Your task to perform on an android device: find snoozed emails in the gmail app Image 0: 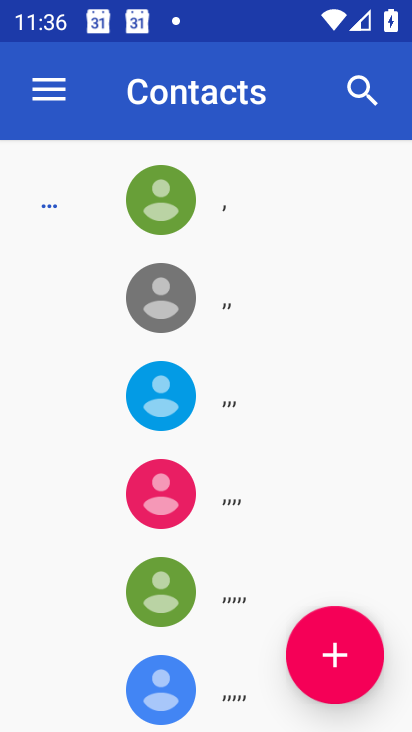
Step 0: press home button
Your task to perform on an android device: find snoozed emails in the gmail app Image 1: 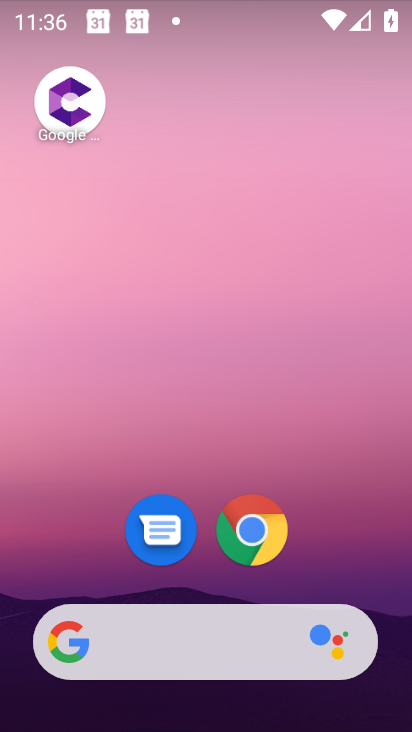
Step 1: drag from (326, 525) to (212, 3)
Your task to perform on an android device: find snoozed emails in the gmail app Image 2: 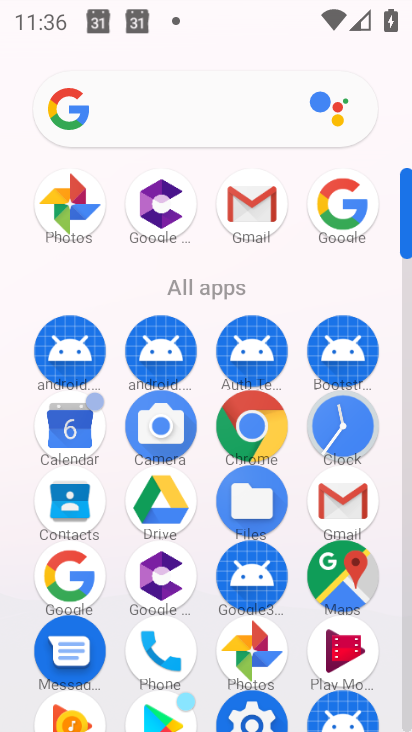
Step 2: click (268, 203)
Your task to perform on an android device: find snoozed emails in the gmail app Image 3: 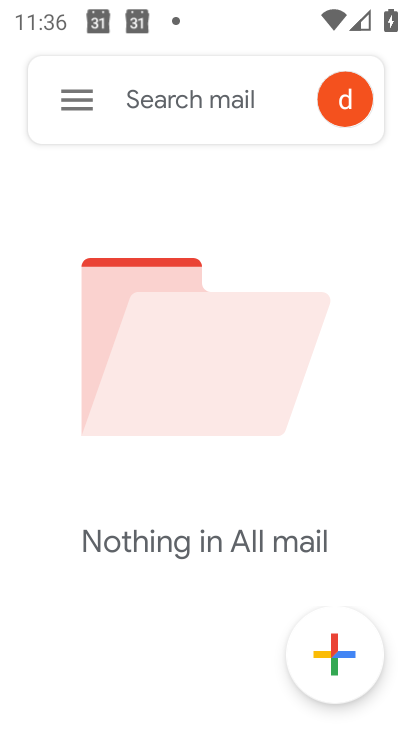
Step 3: click (69, 92)
Your task to perform on an android device: find snoozed emails in the gmail app Image 4: 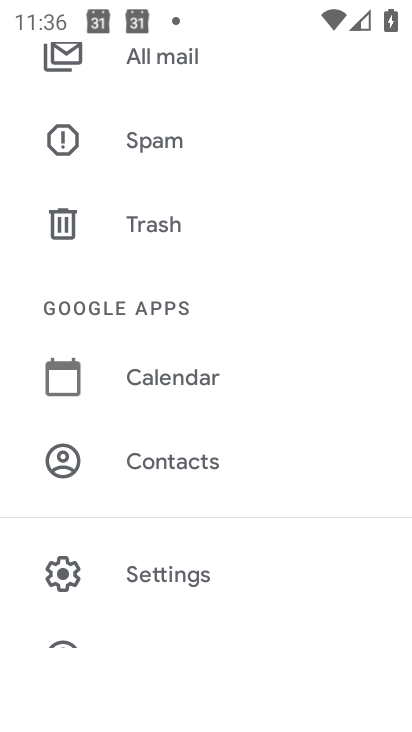
Step 4: click (186, 566)
Your task to perform on an android device: find snoozed emails in the gmail app Image 5: 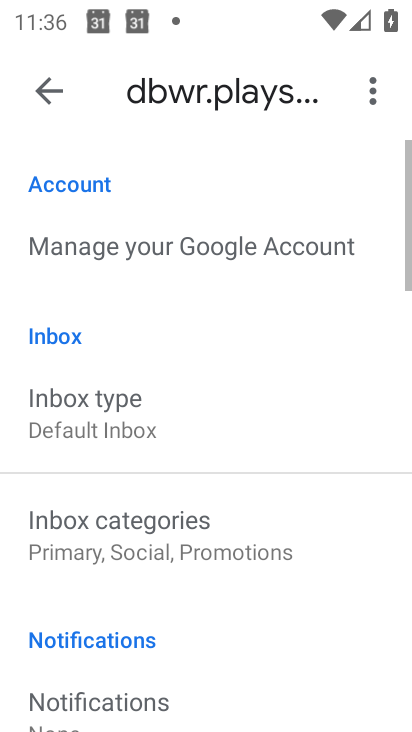
Step 5: click (31, 85)
Your task to perform on an android device: find snoozed emails in the gmail app Image 6: 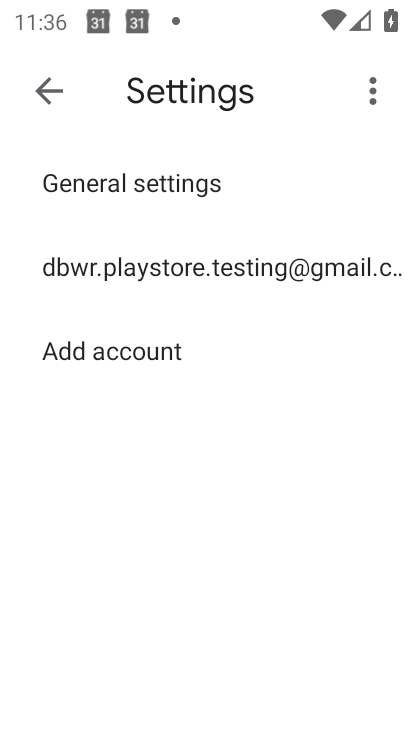
Step 6: click (51, 84)
Your task to perform on an android device: find snoozed emails in the gmail app Image 7: 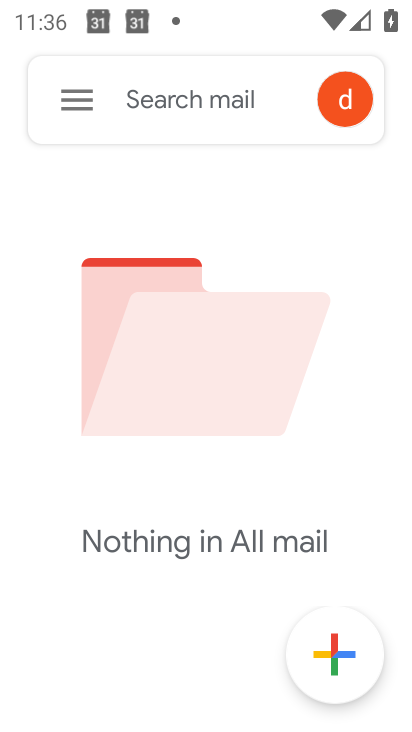
Step 7: click (60, 99)
Your task to perform on an android device: find snoozed emails in the gmail app Image 8: 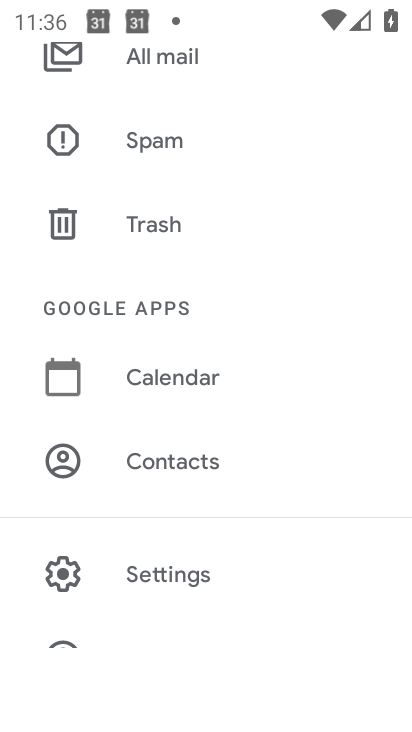
Step 8: drag from (250, 165) to (232, 640)
Your task to perform on an android device: find snoozed emails in the gmail app Image 9: 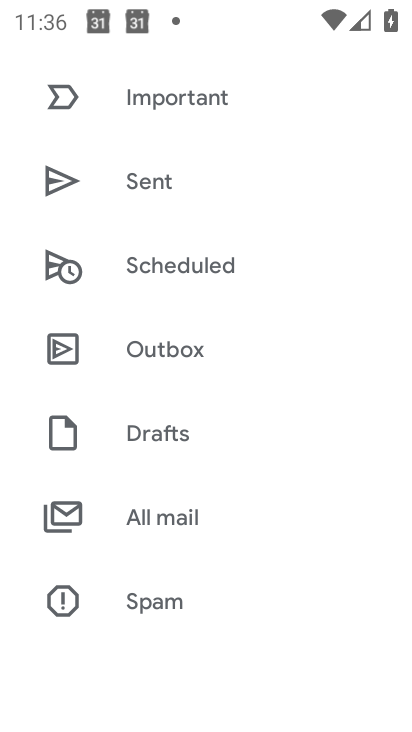
Step 9: drag from (260, 172) to (202, 586)
Your task to perform on an android device: find snoozed emails in the gmail app Image 10: 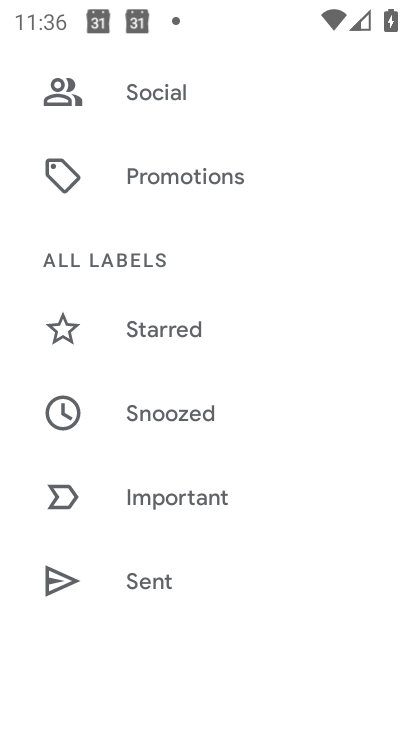
Step 10: click (174, 410)
Your task to perform on an android device: find snoozed emails in the gmail app Image 11: 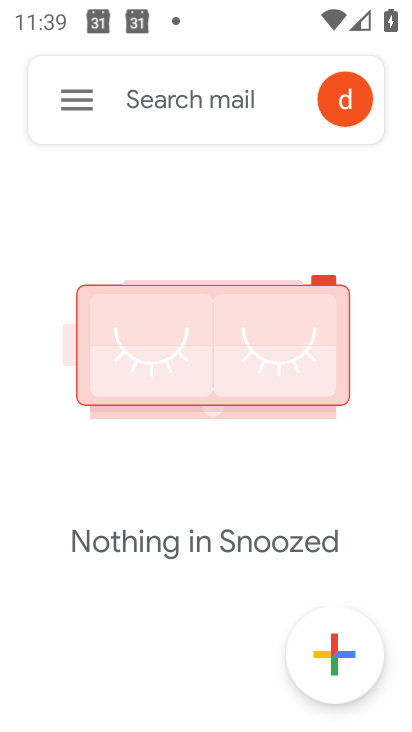
Step 11: task complete